Your task to perform on an android device: turn notification dots off Image 0: 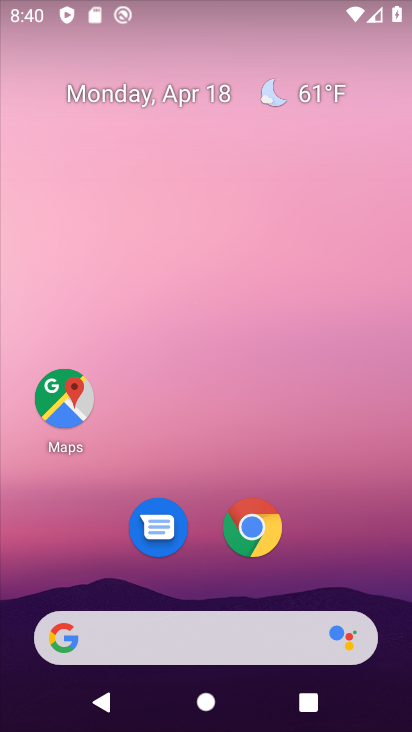
Step 0: drag from (363, 427) to (357, 33)
Your task to perform on an android device: turn notification dots off Image 1: 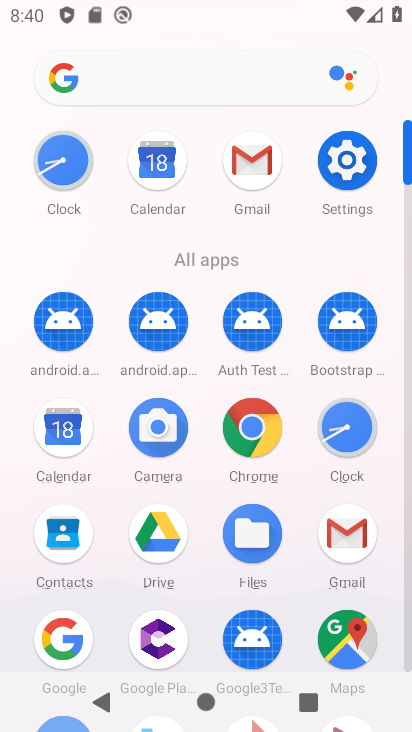
Step 1: click (351, 164)
Your task to perform on an android device: turn notification dots off Image 2: 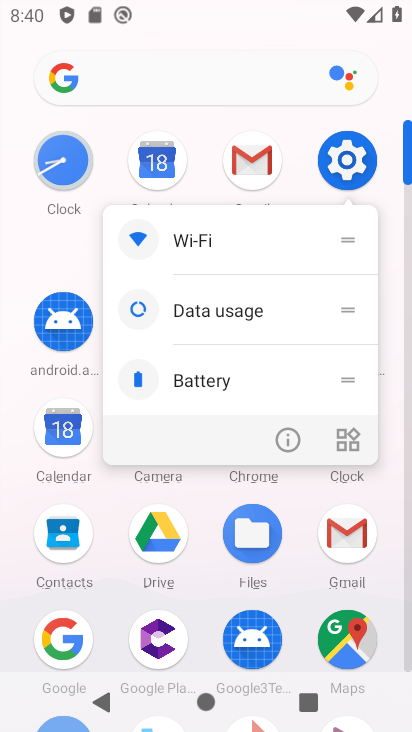
Step 2: click (350, 166)
Your task to perform on an android device: turn notification dots off Image 3: 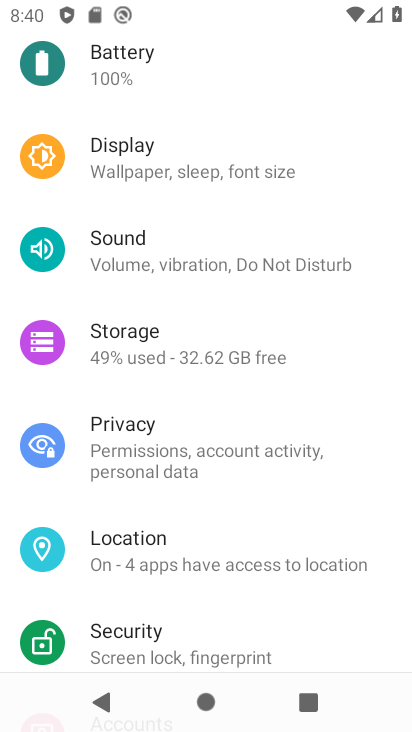
Step 3: drag from (345, 113) to (355, 472)
Your task to perform on an android device: turn notification dots off Image 4: 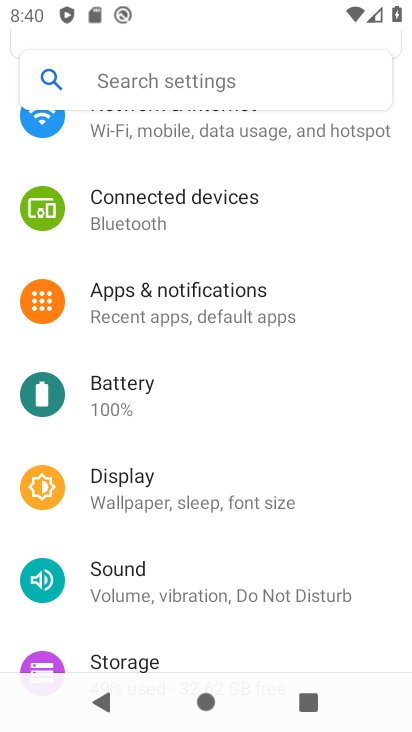
Step 4: click (140, 313)
Your task to perform on an android device: turn notification dots off Image 5: 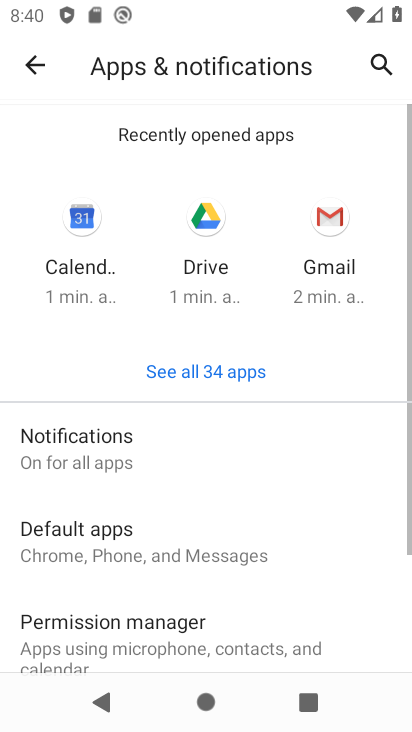
Step 5: click (68, 445)
Your task to perform on an android device: turn notification dots off Image 6: 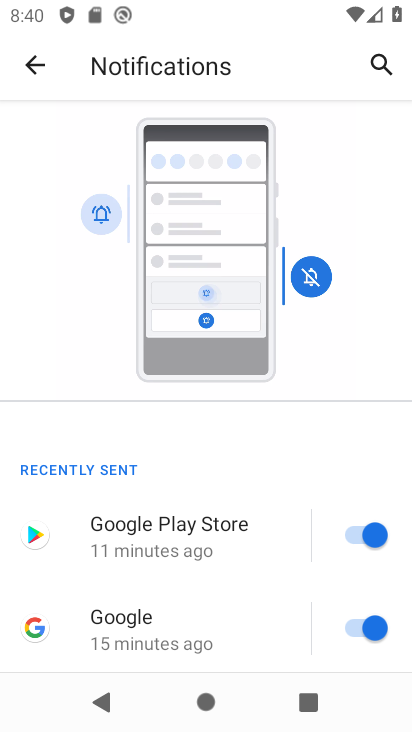
Step 6: drag from (224, 574) to (235, 246)
Your task to perform on an android device: turn notification dots off Image 7: 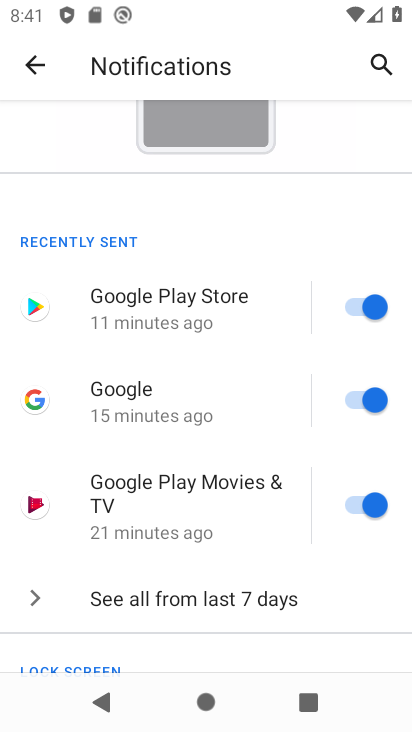
Step 7: drag from (229, 547) to (235, 270)
Your task to perform on an android device: turn notification dots off Image 8: 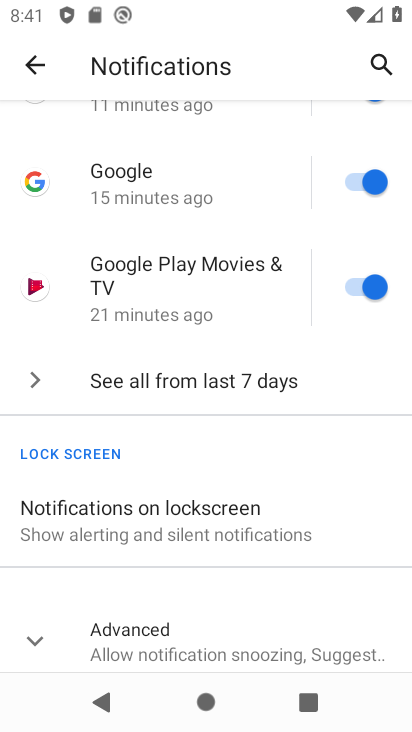
Step 8: drag from (284, 566) to (266, 313)
Your task to perform on an android device: turn notification dots off Image 9: 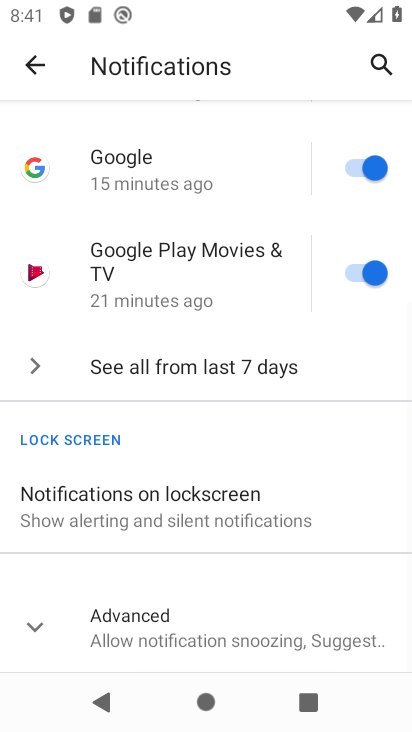
Step 9: click (36, 638)
Your task to perform on an android device: turn notification dots off Image 10: 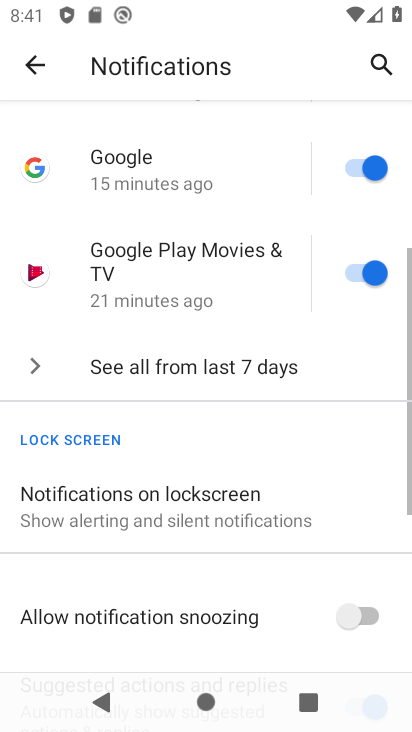
Step 10: drag from (213, 657) to (214, 210)
Your task to perform on an android device: turn notification dots off Image 11: 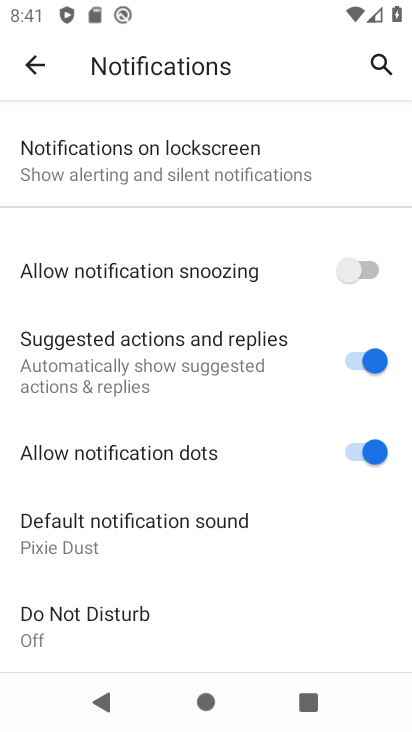
Step 11: click (370, 456)
Your task to perform on an android device: turn notification dots off Image 12: 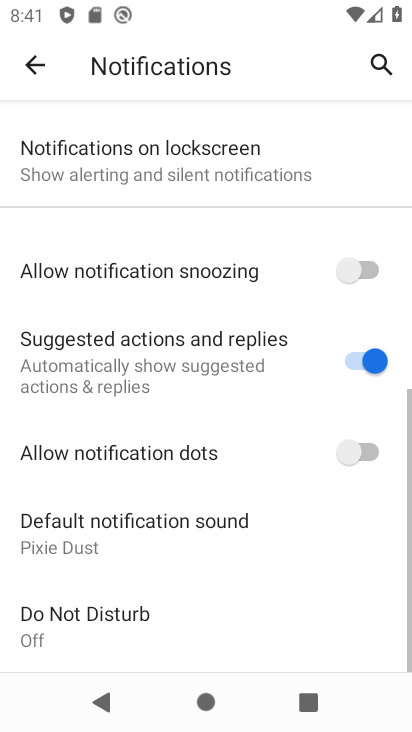
Step 12: task complete